Your task to perform on an android device: toggle javascript in the chrome app Image 0: 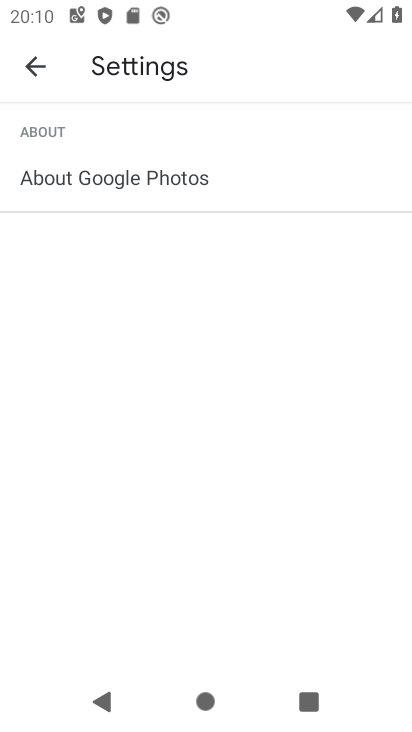
Step 0: press home button
Your task to perform on an android device: toggle javascript in the chrome app Image 1: 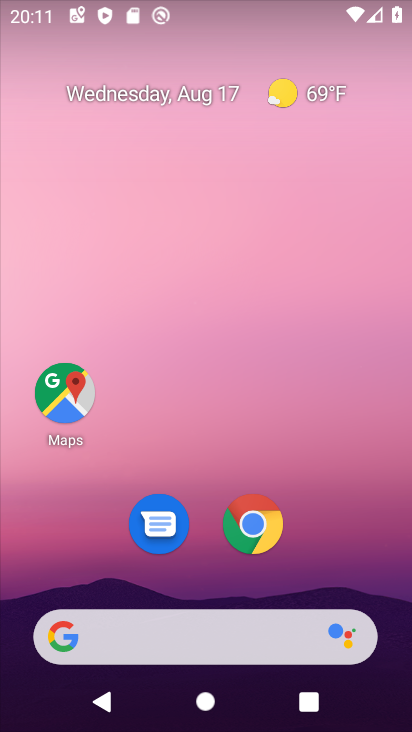
Step 1: click (257, 525)
Your task to perform on an android device: toggle javascript in the chrome app Image 2: 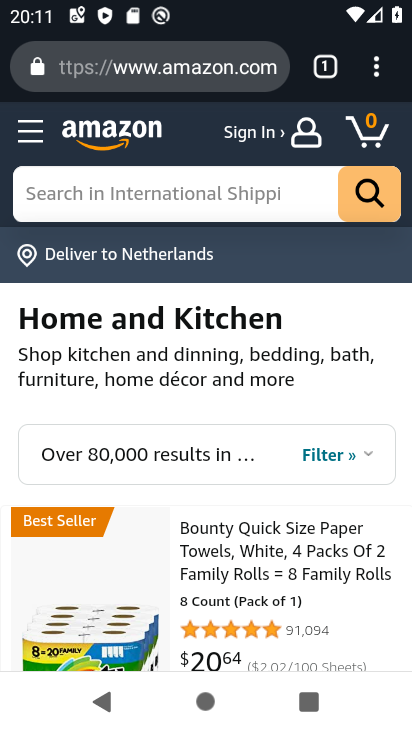
Step 2: click (377, 70)
Your task to perform on an android device: toggle javascript in the chrome app Image 3: 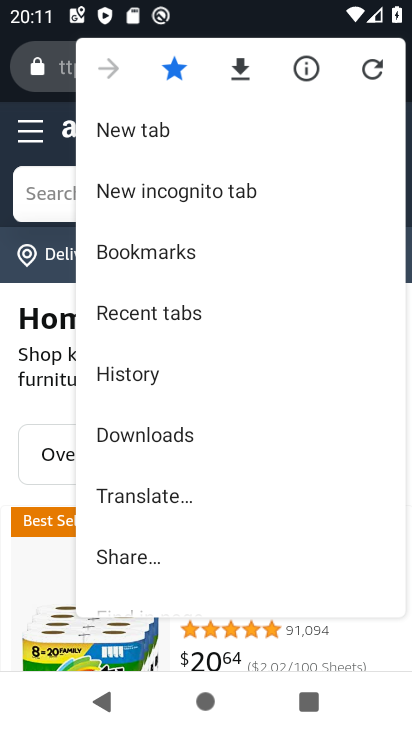
Step 3: drag from (240, 482) to (315, 59)
Your task to perform on an android device: toggle javascript in the chrome app Image 4: 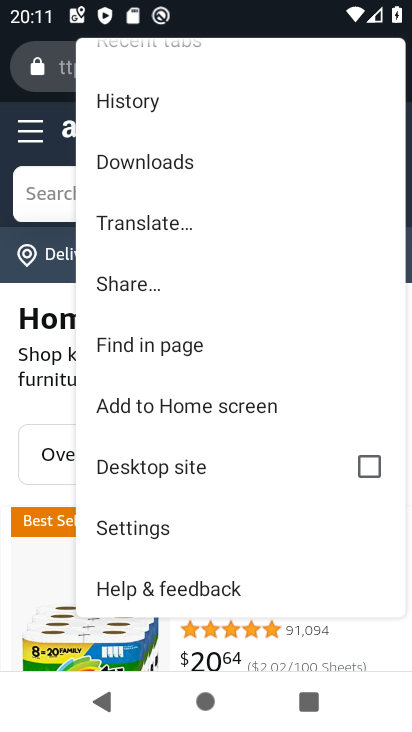
Step 4: click (173, 525)
Your task to perform on an android device: toggle javascript in the chrome app Image 5: 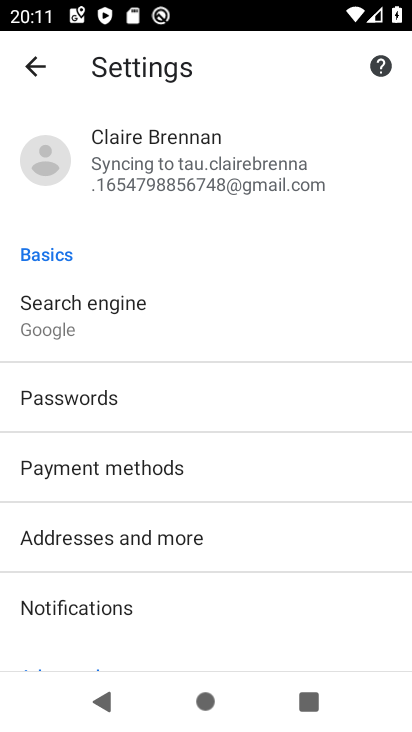
Step 5: drag from (251, 605) to (291, 80)
Your task to perform on an android device: toggle javascript in the chrome app Image 6: 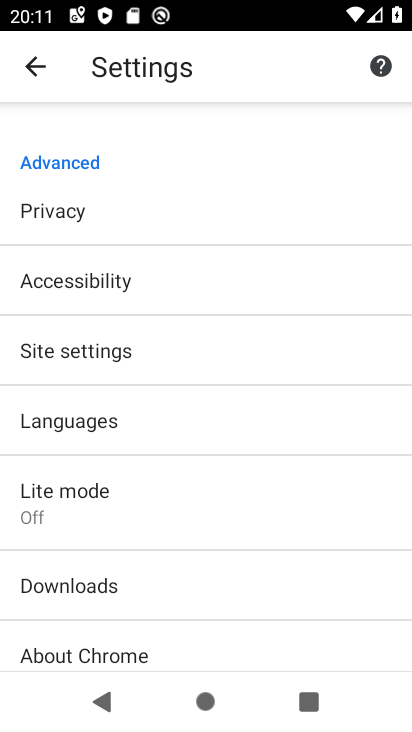
Step 6: click (239, 346)
Your task to perform on an android device: toggle javascript in the chrome app Image 7: 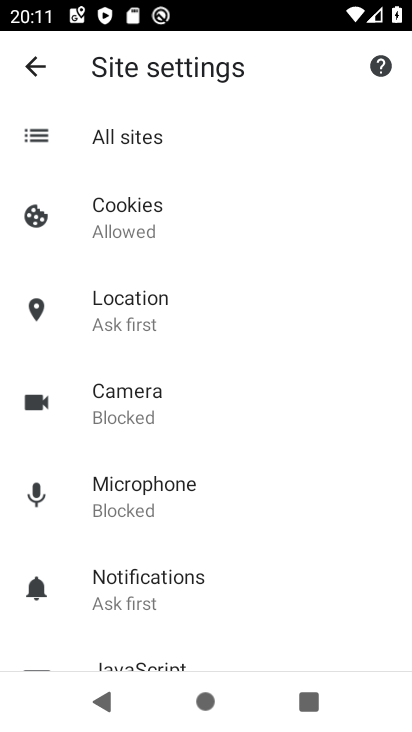
Step 7: drag from (227, 504) to (237, 209)
Your task to perform on an android device: toggle javascript in the chrome app Image 8: 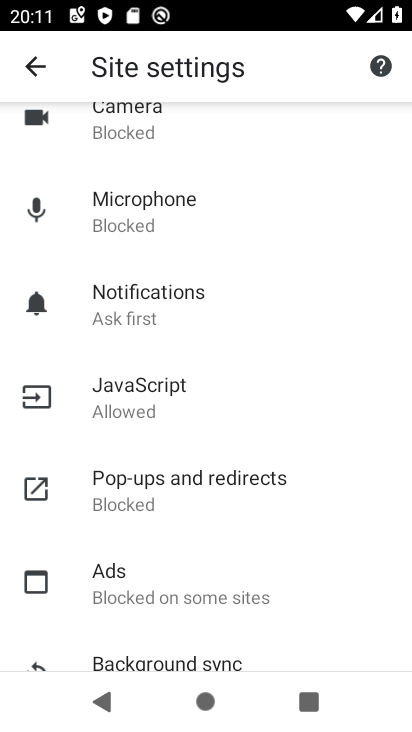
Step 8: click (181, 396)
Your task to perform on an android device: toggle javascript in the chrome app Image 9: 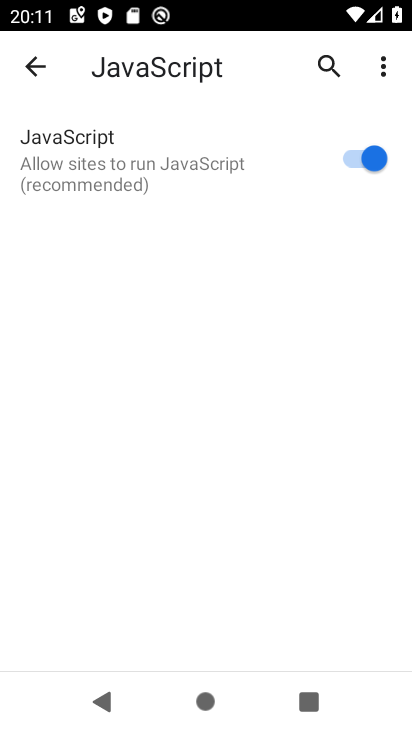
Step 9: click (360, 147)
Your task to perform on an android device: toggle javascript in the chrome app Image 10: 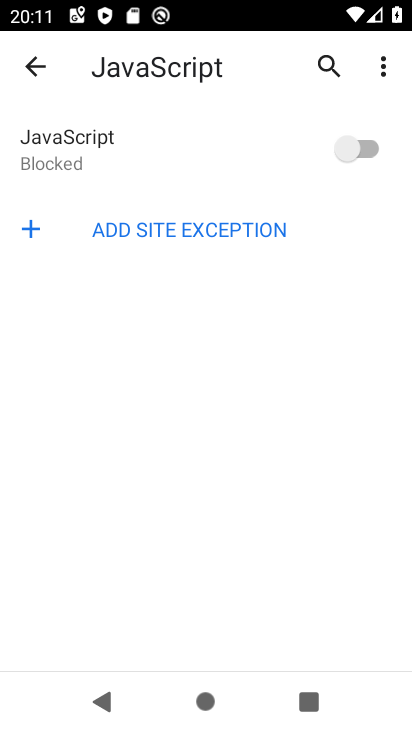
Step 10: task complete